Your task to perform on an android device: Go to Wikipedia Image 0: 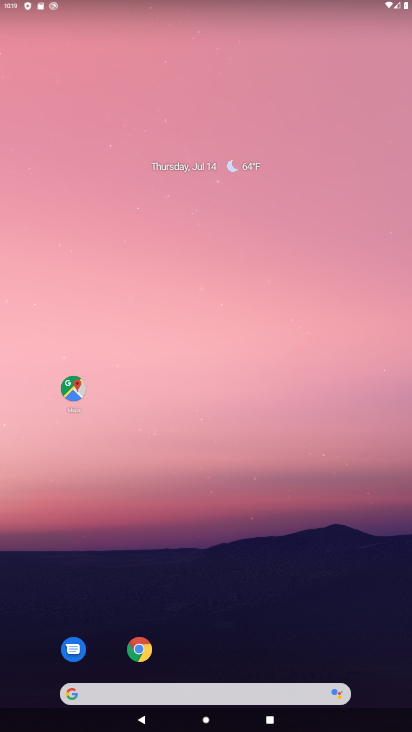
Step 0: click (140, 651)
Your task to perform on an android device: Go to Wikipedia Image 1: 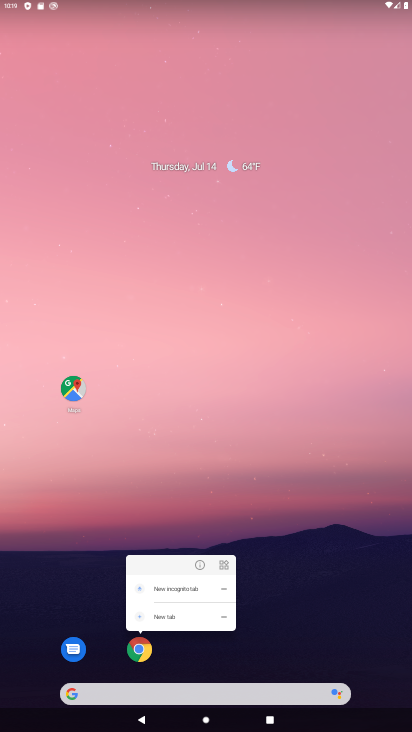
Step 1: click (140, 651)
Your task to perform on an android device: Go to Wikipedia Image 2: 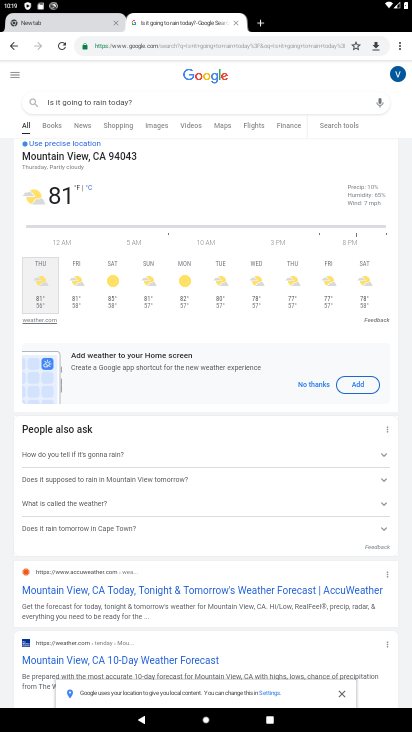
Step 2: click (101, 42)
Your task to perform on an android device: Go to Wikipedia Image 3: 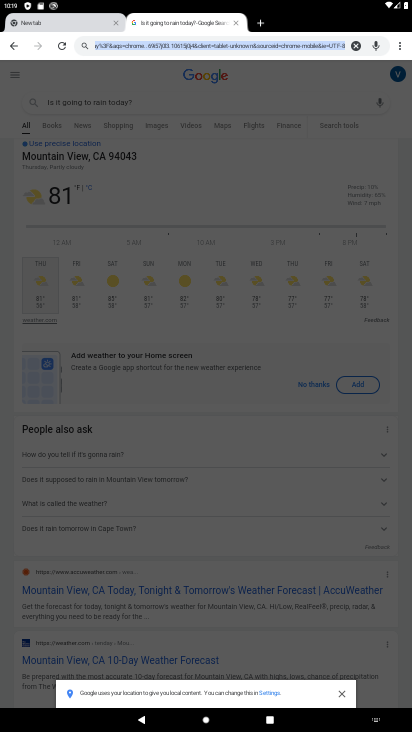
Step 3: type "Wikipedia"
Your task to perform on an android device: Go to Wikipedia Image 4: 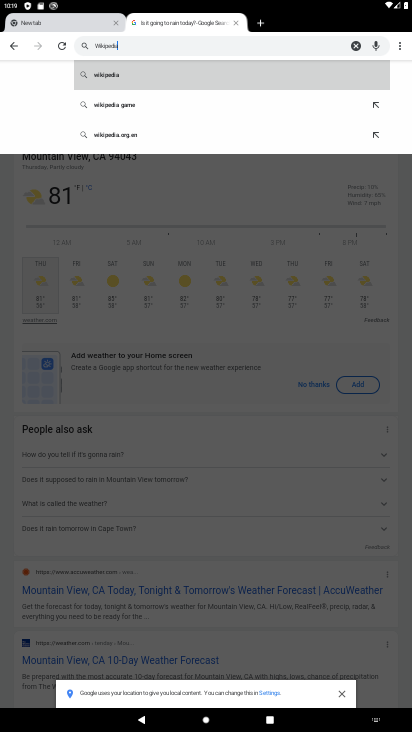
Step 4: click (135, 70)
Your task to perform on an android device: Go to Wikipedia Image 5: 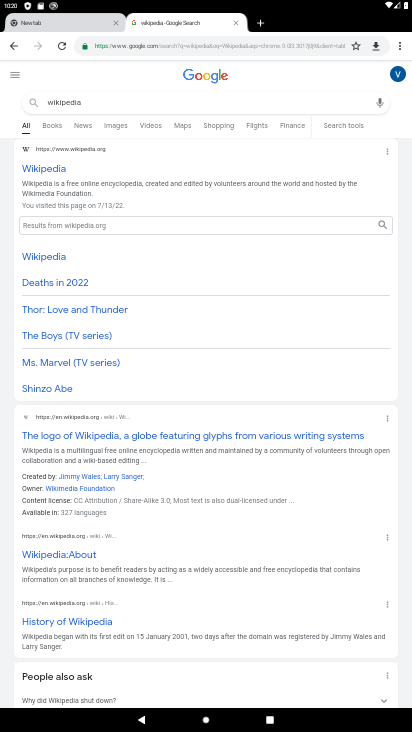
Step 5: click (49, 171)
Your task to perform on an android device: Go to Wikipedia Image 6: 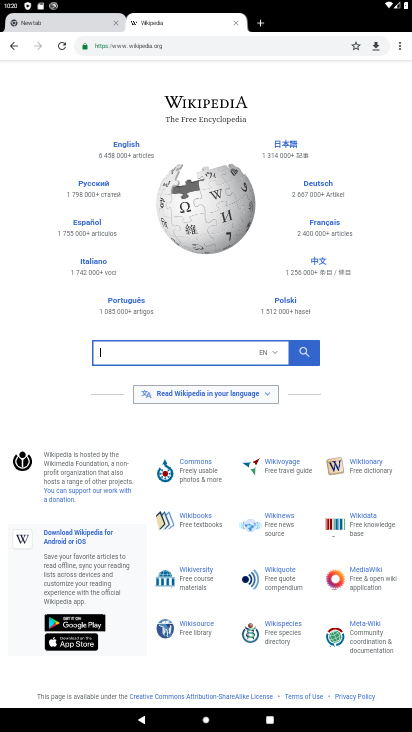
Step 6: task complete